Your task to perform on an android device: Do I have any events tomorrow? Image 0: 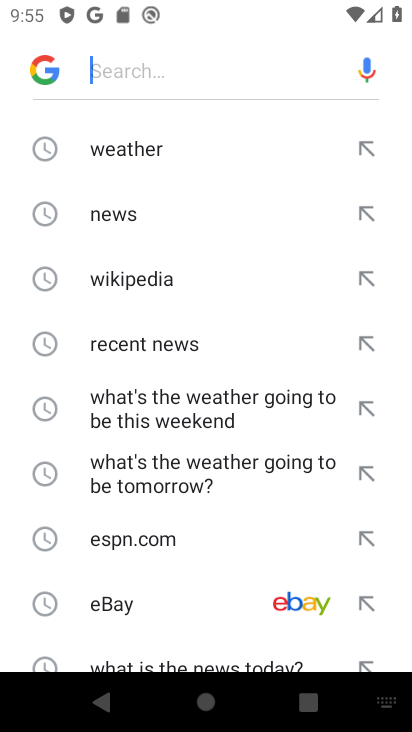
Step 0: press back button
Your task to perform on an android device: Do I have any events tomorrow? Image 1: 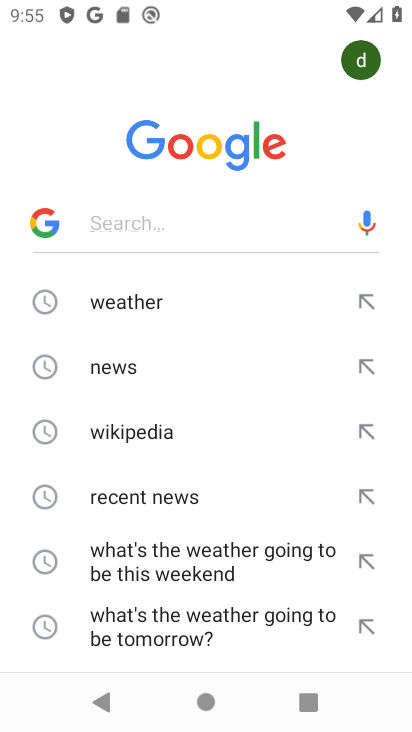
Step 1: press back button
Your task to perform on an android device: Do I have any events tomorrow? Image 2: 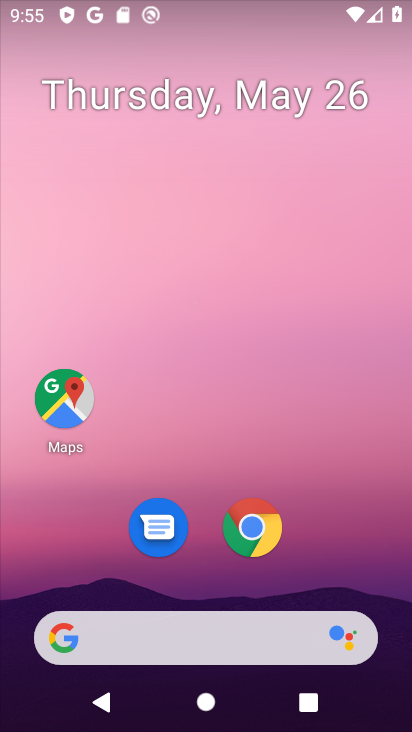
Step 2: drag from (368, 581) to (379, 112)
Your task to perform on an android device: Do I have any events tomorrow? Image 3: 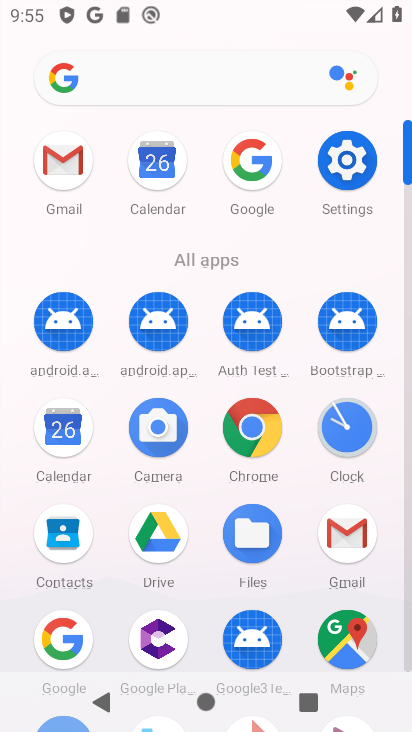
Step 3: click (75, 419)
Your task to perform on an android device: Do I have any events tomorrow? Image 4: 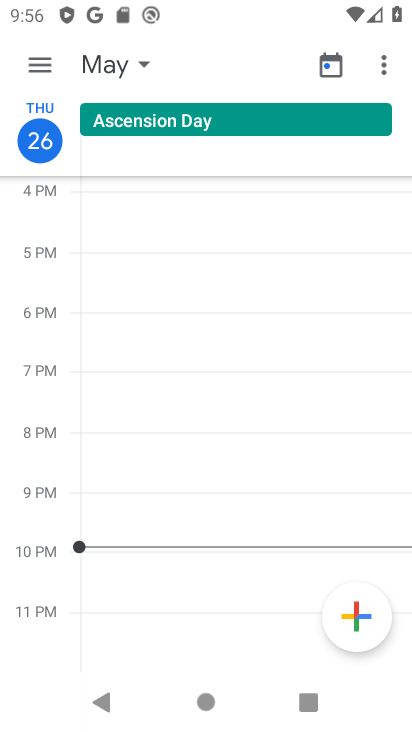
Step 4: click (43, 66)
Your task to perform on an android device: Do I have any events tomorrow? Image 5: 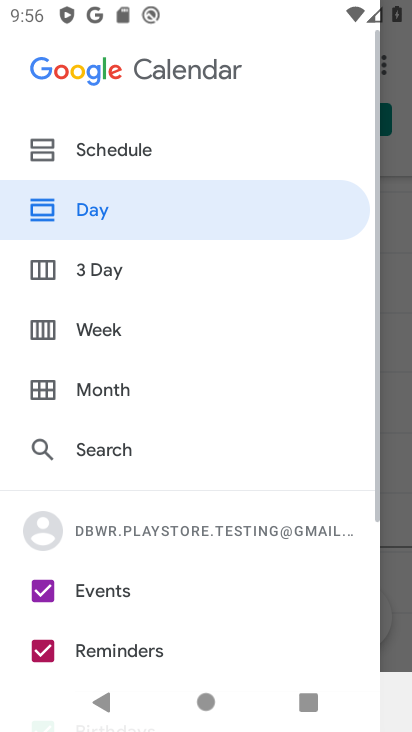
Step 5: click (286, 216)
Your task to perform on an android device: Do I have any events tomorrow? Image 6: 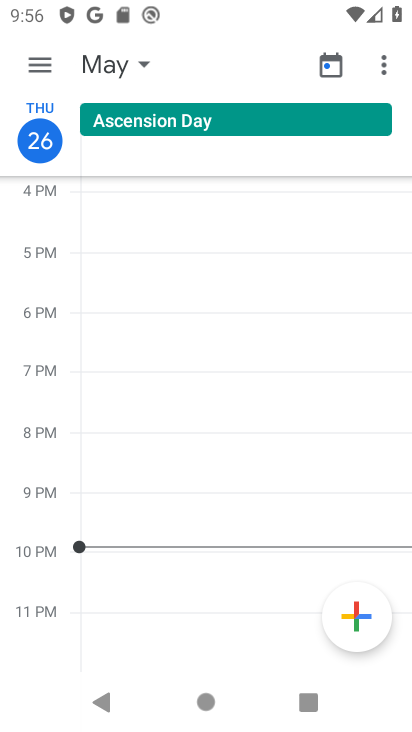
Step 6: click (126, 56)
Your task to perform on an android device: Do I have any events tomorrow? Image 7: 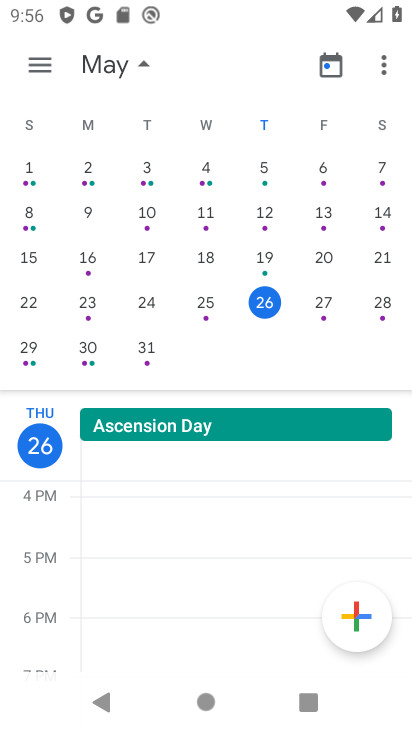
Step 7: click (325, 295)
Your task to perform on an android device: Do I have any events tomorrow? Image 8: 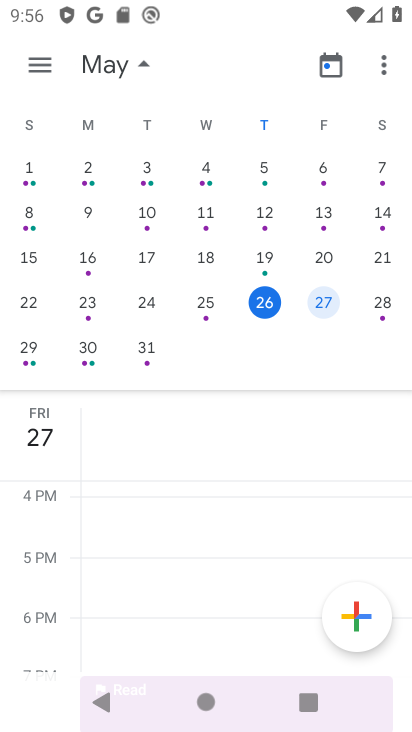
Step 8: task complete